Your task to perform on an android device: Go to notification settings Image 0: 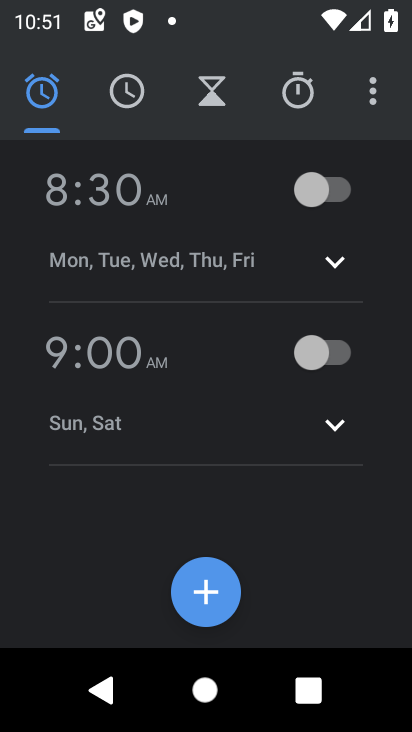
Step 0: press home button
Your task to perform on an android device: Go to notification settings Image 1: 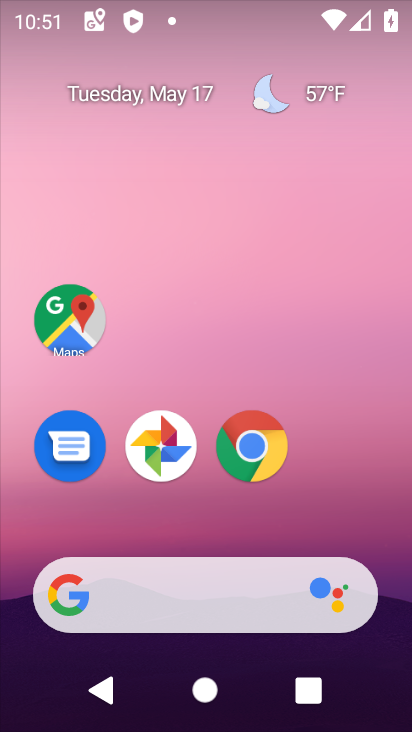
Step 1: drag from (184, 586) to (158, 51)
Your task to perform on an android device: Go to notification settings Image 2: 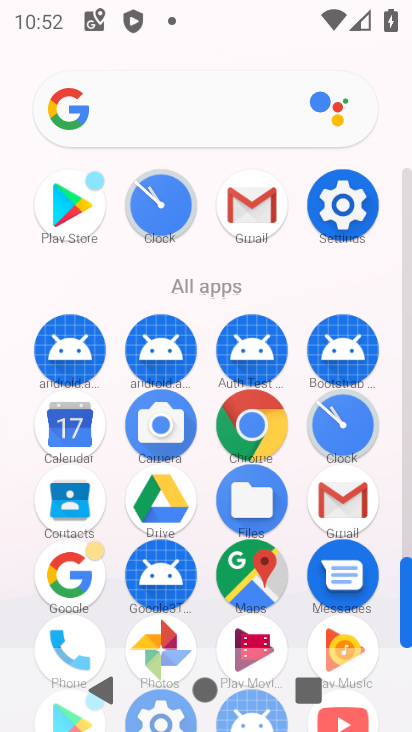
Step 2: click (341, 220)
Your task to perform on an android device: Go to notification settings Image 3: 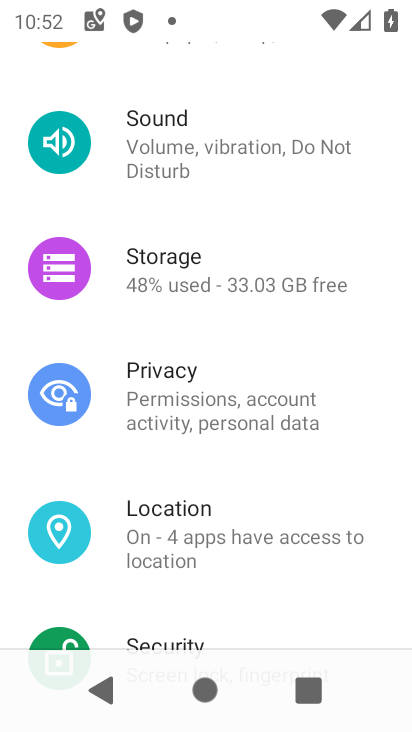
Step 3: drag from (200, 217) to (169, 622)
Your task to perform on an android device: Go to notification settings Image 4: 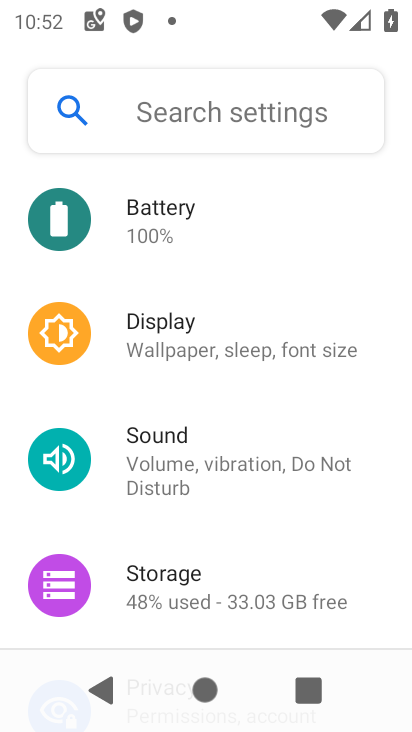
Step 4: drag from (194, 340) to (160, 685)
Your task to perform on an android device: Go to notification settings Image 5: 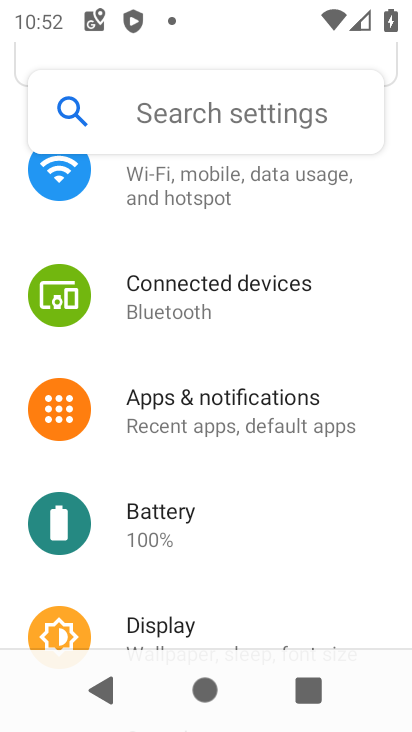
Step 5: click (176, 421)
Your task to perform on an android device: Go to notification settings Image 6: 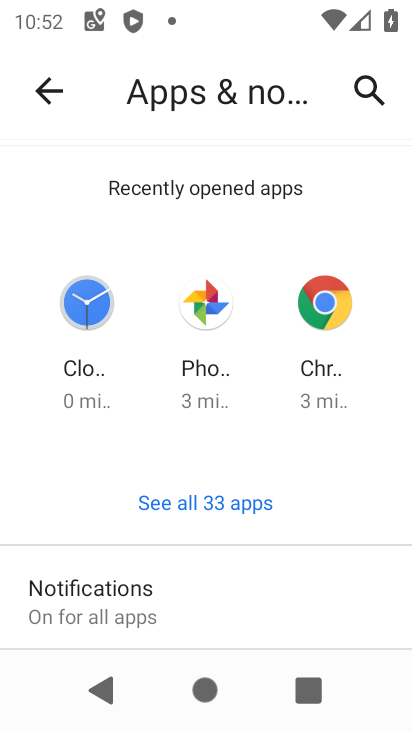
Step 6: task complete